Your task to perform on an android device: open the mobile data screen to see how much data has been used Image 0: 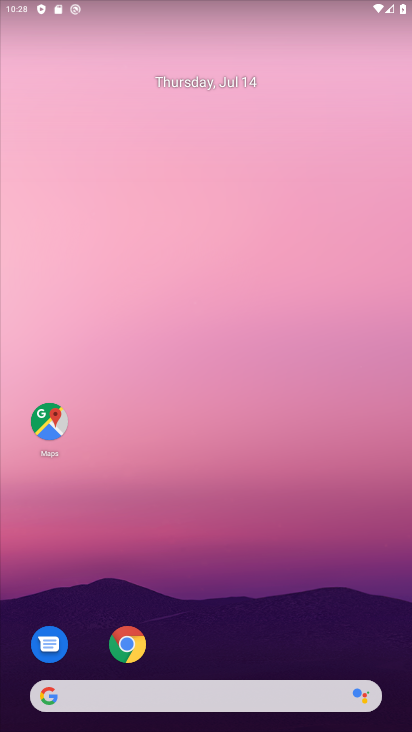
Step 0: drag from (226, 702) to (167, 207)
Your task to perform on an android device: open the mobile data screen to see how much data has been used Image 1: 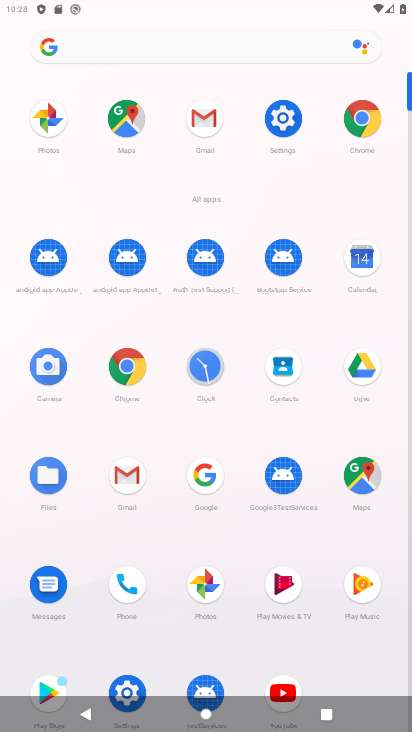
Step 1: click (280, 138)
Your task to perform on an android device: open the mobile data screen to see how much data has been used Image 2: 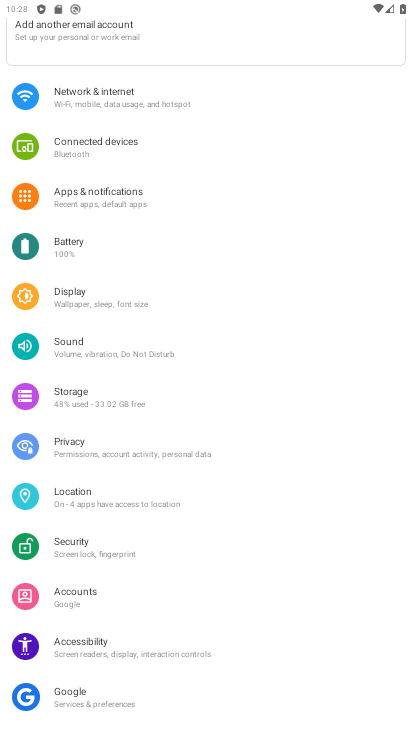
Step 2: click (62, 107)
Your task to perform on an android device: open the mobile data screen to see how much data has been used Image 3: 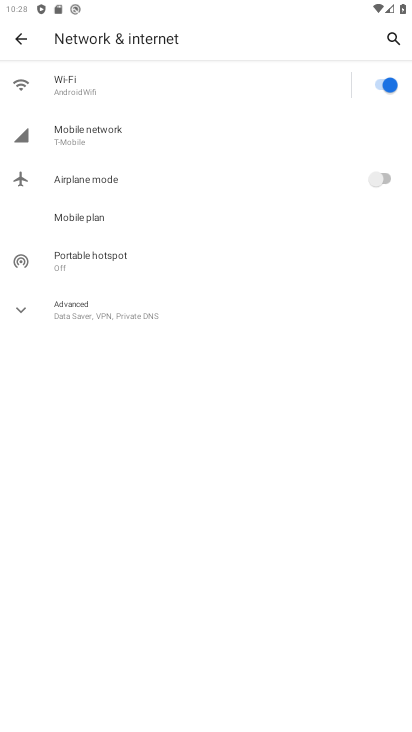
Step 3: click (113, 144)
Your task to perform on an android device: open the mobile data screen to see how much data has been used Image 4: 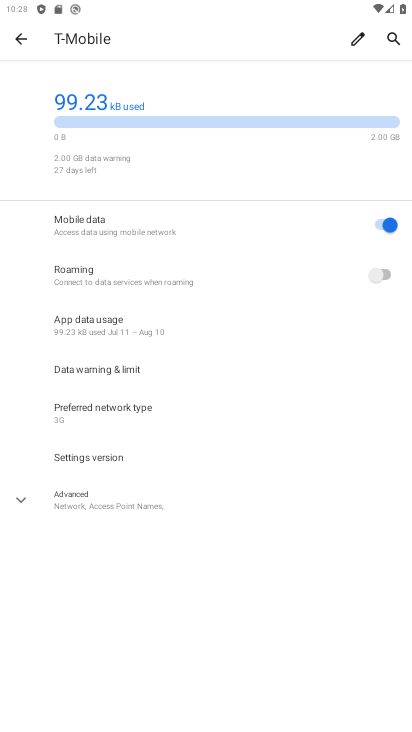
Step 4: task complete